Your task to perform on an android device: Go to internet settings Image 0: 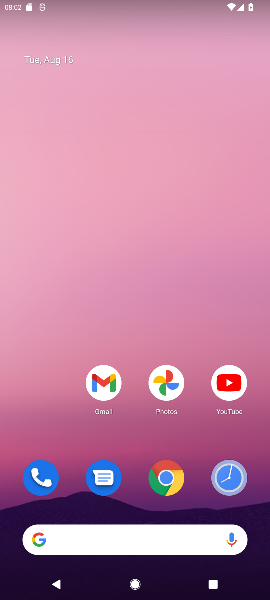
Step 0: press home button
Your task to perform on an android device: Go to internet settings Image 1: 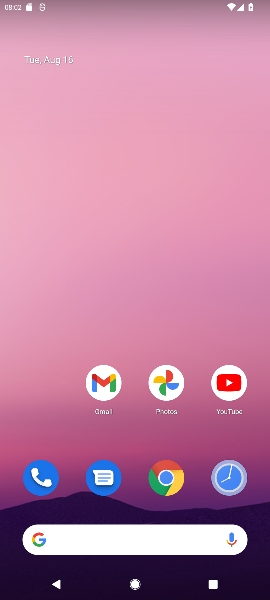
Step 1: drag from (136, 441) to (154, 0)
Your task to perform on an android device: Go to internet settings Image 2: 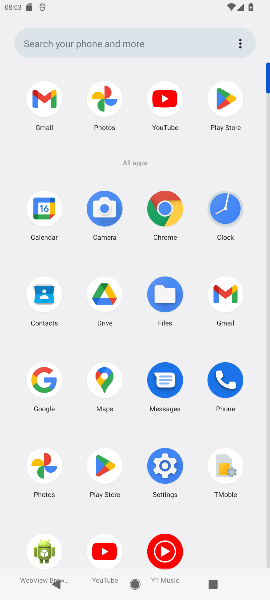
Step 2: click (161, 458)
Your task to perform on an android device: Go to internet settings Image 3: 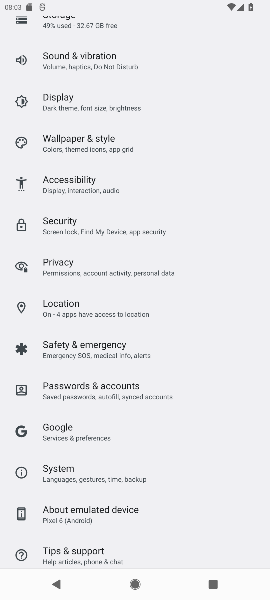
Step 3: drag from (105, 65) to (110, 501)
Your task to perform on an android device: Go to internet settings Image 4: 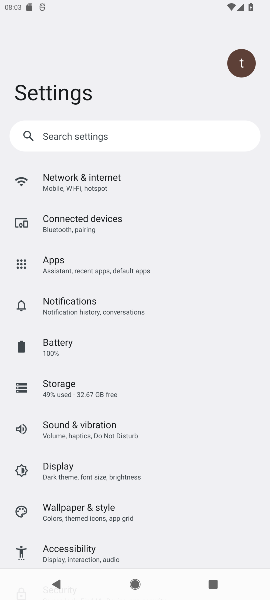
Step 4: click (113, 184)
Your task to perform on an android device: Go to internet settings Image 5: 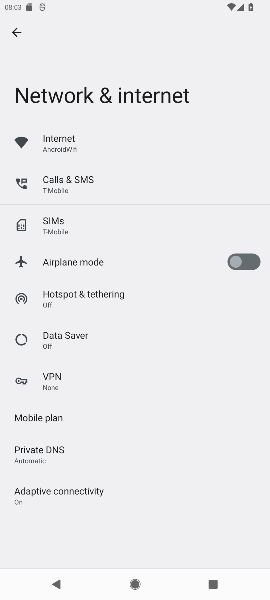
Step 5: task complete